Your task to perform on an android device: Go to calendar. Show me events next week Image 0: 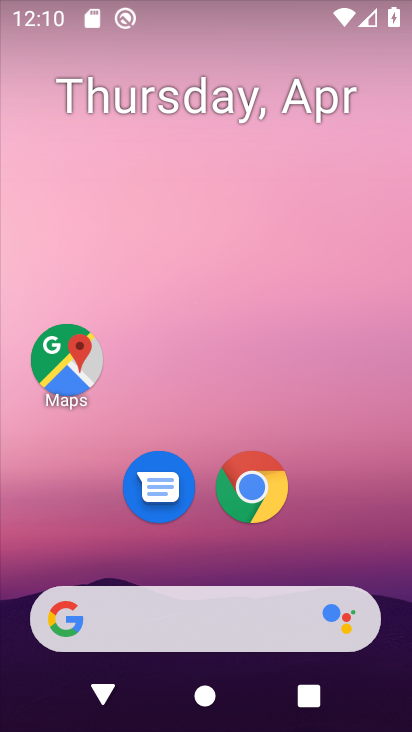
Step 0: drag from (309, 663) to (270, 263)
Your task to perform on an android device: Go to calendar. Show me events next week Image 1: 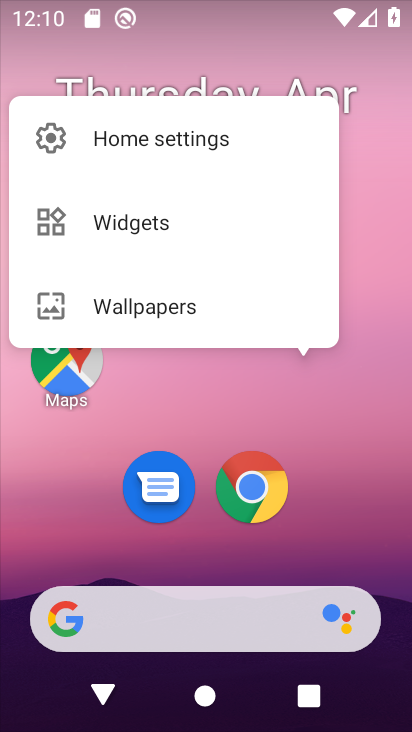
Step 1: click (278, 399)
Your task to perform on an android device: Go to calendar. Show me events next week Image 2: 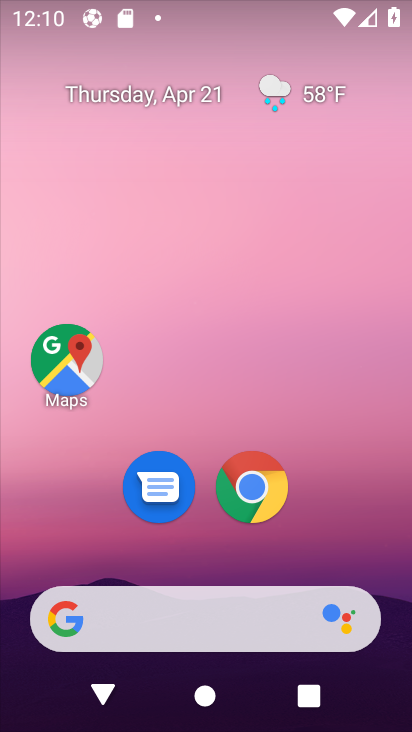
Step 2: drag from (200, 661) to (224, 132)
Your task to perform on an android device: Go to calendar. Show me events next week Image 3: 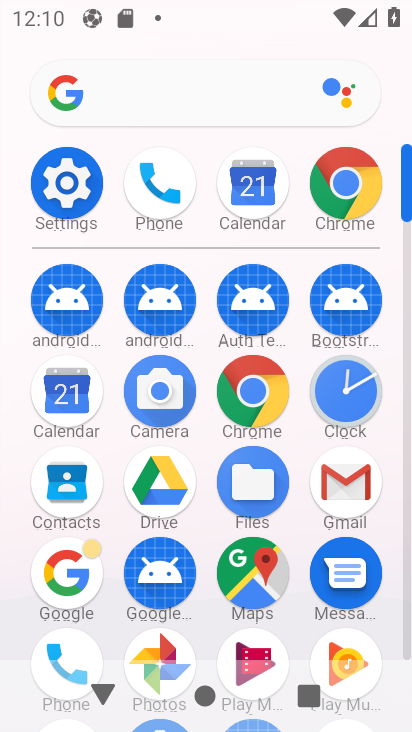
Step 3: click (65, 380)
Your task to perform on an android device: Go to calendar. Show me events next week Image 4: 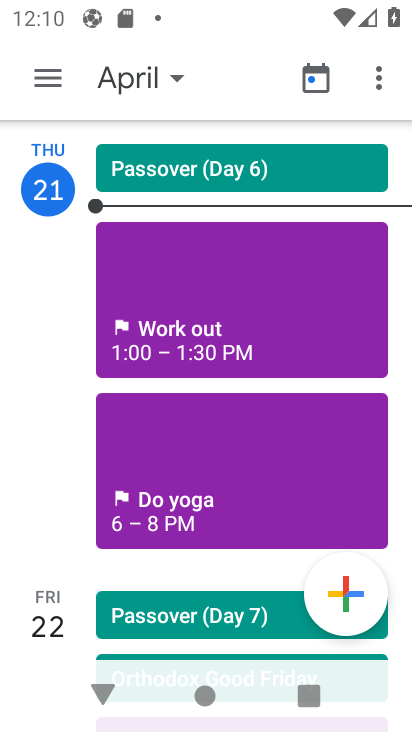
Step 4: click (51, 87)
Your task to perform on an android device: Go to calendar. Show me events next week Image 5: 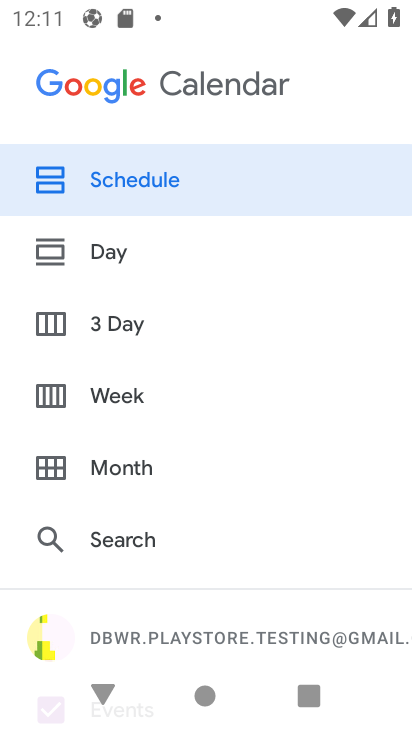
Step 5: click (114, 460)
Your task to perform on an android device: Go to calendar. Show me events next week Image 6: 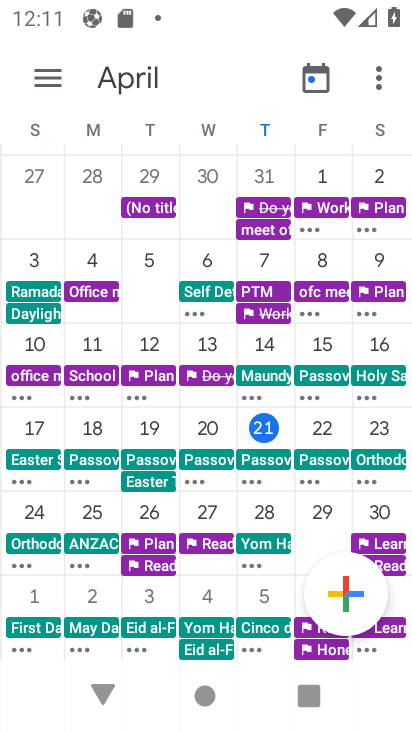
Step 6: click (39, 94)
Your task to perform on an android device: Go to calendar. Show me events next week Image 7: 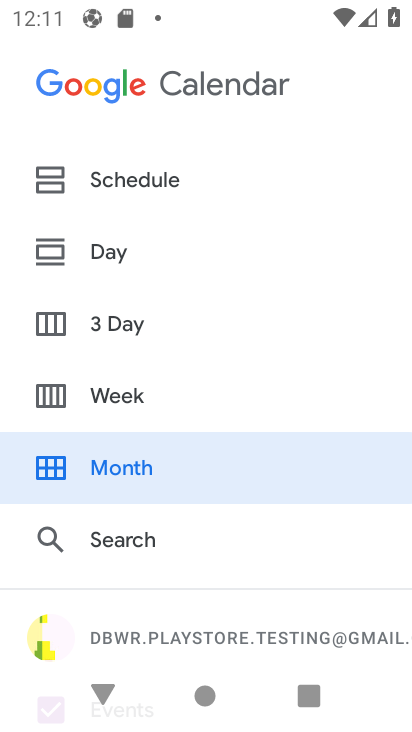
Step 7: click (132, 457)
Your task to perform on an android device: Go to calendar. Show me events next week Image 8: 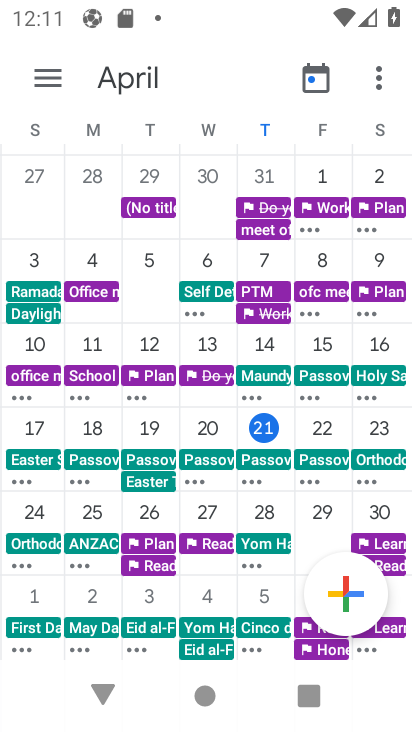
Step 8: click (96, 502)
Your task to perform on an android device: Go to calendar. Show me events next week Image 9: 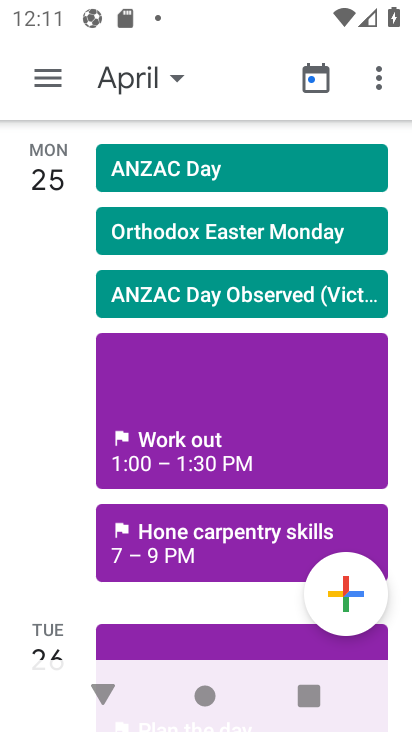
Step 9: task complete